Your task to perform on an android device: Open Chrome and go to the settings page Image 0: 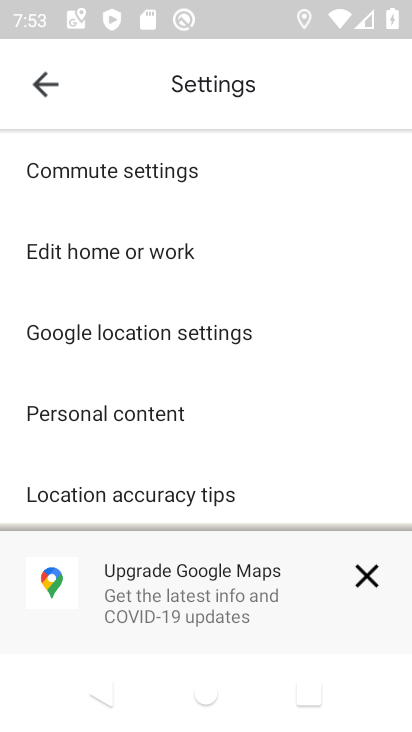
Step 0: press home button
Your task to perform on an android device: Open Chrome and go to the settings page Image 1: 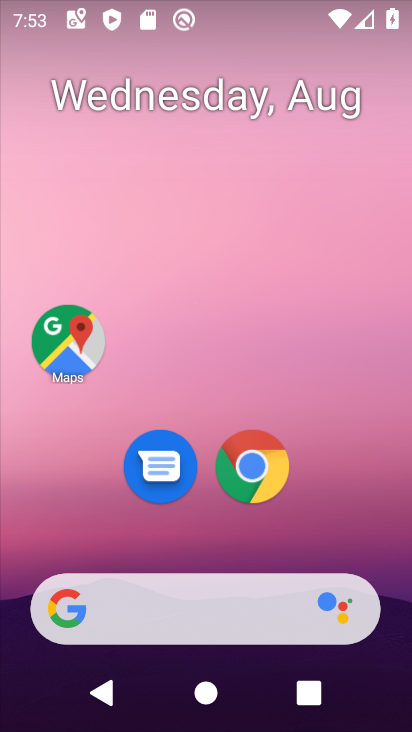
Step 1: drag from (333, 512) to (283, 28)
Your task to perform on an android device: Open Chrome and go to the settings page Image 2: 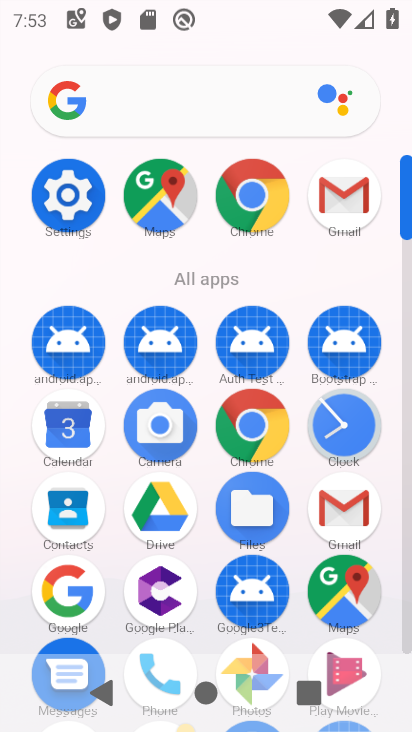
Step 2: click (252, 428)
Your task to perform on an android device: Open Chrome and go to the settings page Image 3: 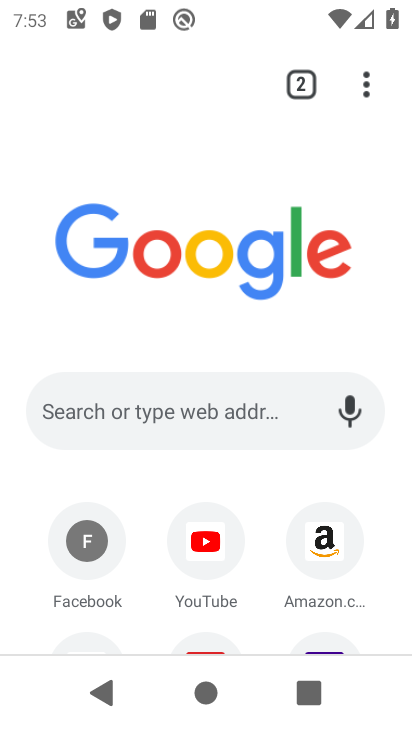
Step 3: click (362, 75)
Your task to perform on an android device: Open Chrome and go to the settings page Image 4: 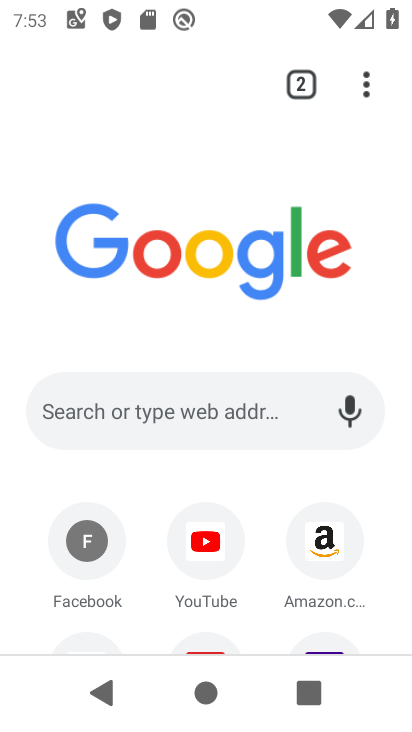
Step 4: task complete